Your task to perform on an android device: Open calendar and show me the third week of next month Image 0: 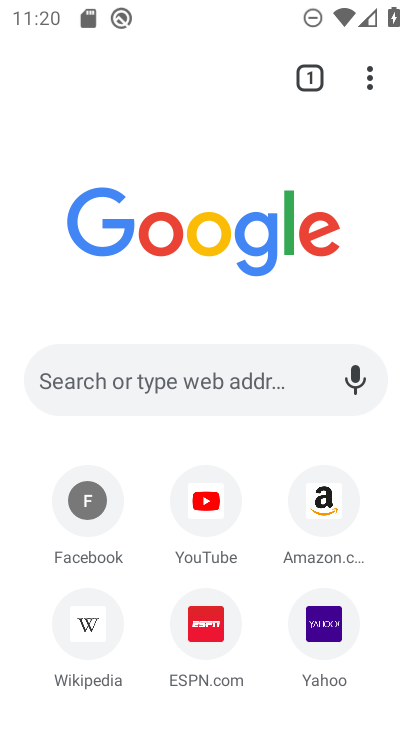
Step 0: press home button
Your task to perform on an android device: Open calendar and show me the third week of next month Image 1: 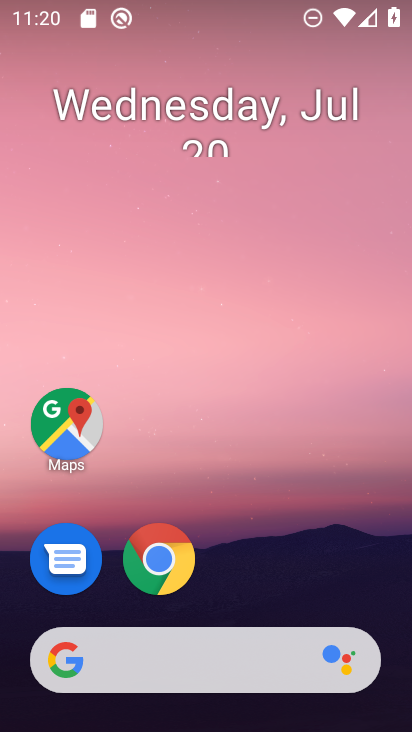
Step 1: drag from (211, 576) to (237, 106)
Your task to perform on an android device: Open calendar and show me the third week of next month Image 2: 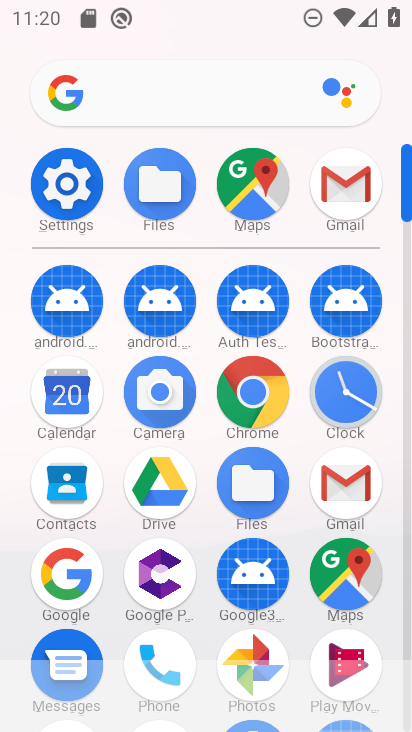
Step 2: click (73, 411)
Your task to perform on an android device: Open calendar and show me the third week of next month Image 3: 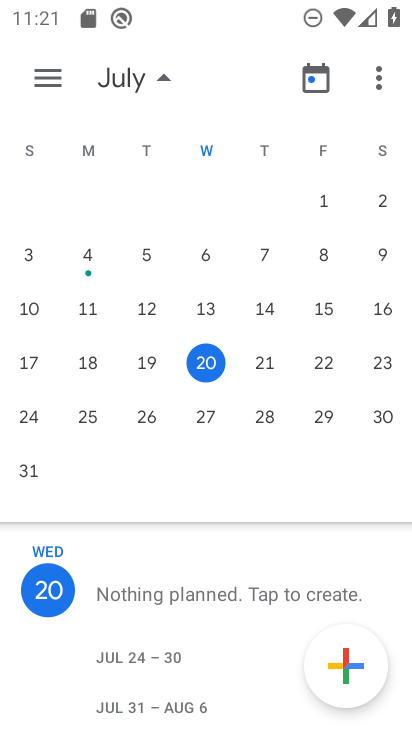
Step 3: drag from (325, 384) to (9, 342)
Your task to perform on an android device: Open calendar and show me the third week of next month Image 4: 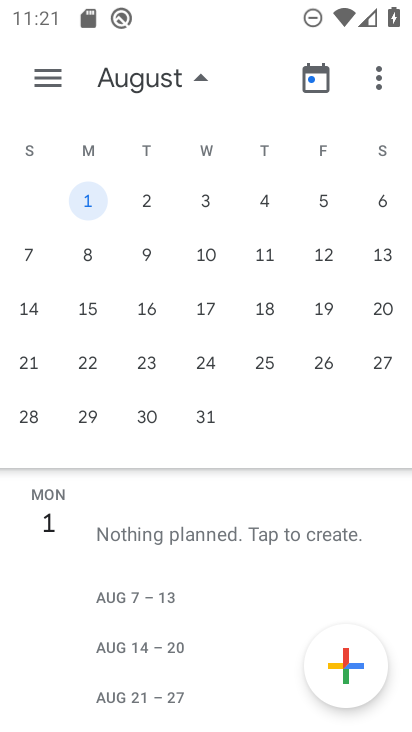
Step 4: click (93, 324)
Your task to perform on an android device: Open calendar and show me the third week of next month Image 5: 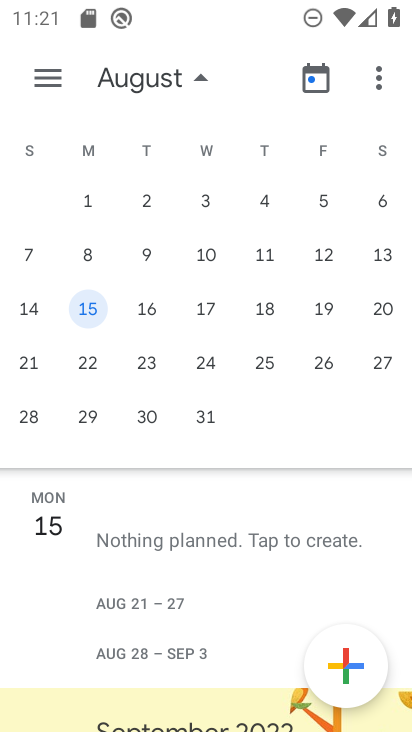
Step 5: task complete